Your task to perform on an android device: Is it going to rain this weekend? Image 0: 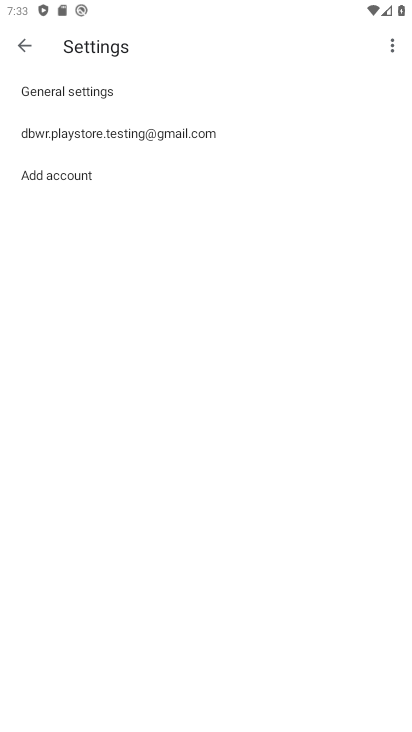
Step 0: press home button
Your task to perform on an android device: Is it going to rain this weekend? Image 1: 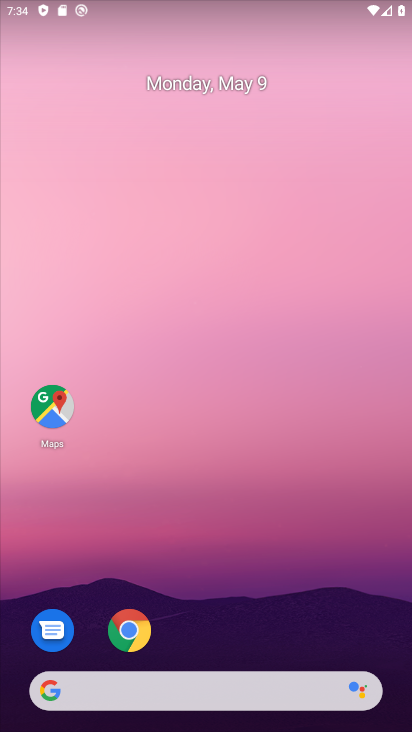
Step 1: drag from (343, 625) to (341, 255)
Your task to perform on an android device: Is it going to rain this weekend? Image 2: 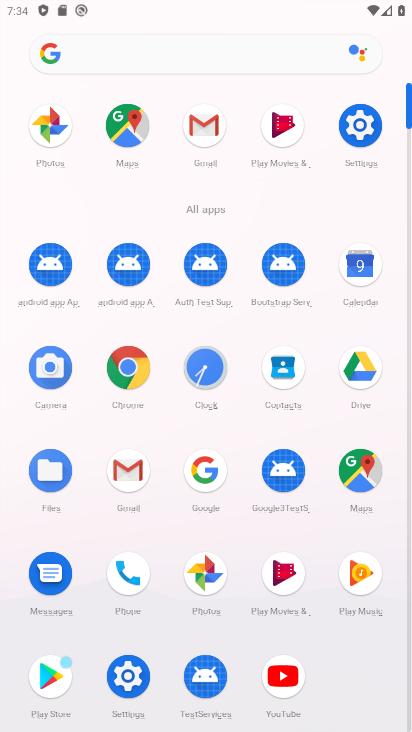
Step 2: click (123, 363)
Your task to perform on an android device: Is it going to rain this weekend? Image 3: 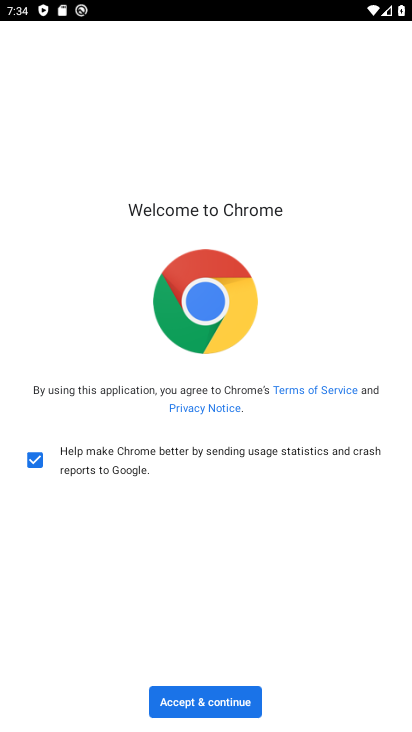
Step 3: click (178, 705)
Your task to perform on an android device: Is it going to rain this weekend? Image 4: 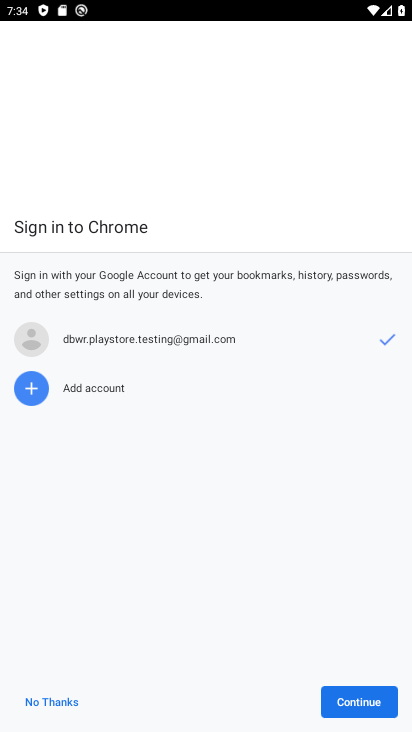
Step 4: click (359, 716)
Your task to perform on an android device: Is it going to rain this weekend? Image 5: 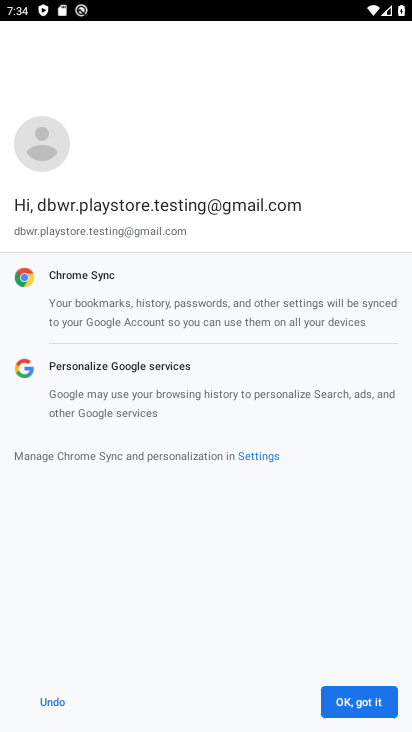
Step 5: click (360, 698)
Your task to perform on an android device: Is it going to rain this weekend? Image 6: 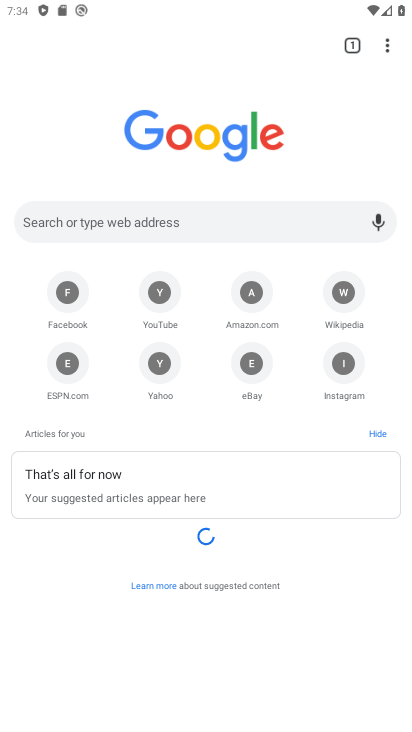
Step 6: click (205, 224)
Your task to perform on an android device: Is it going to rain this weekend? Image 7: 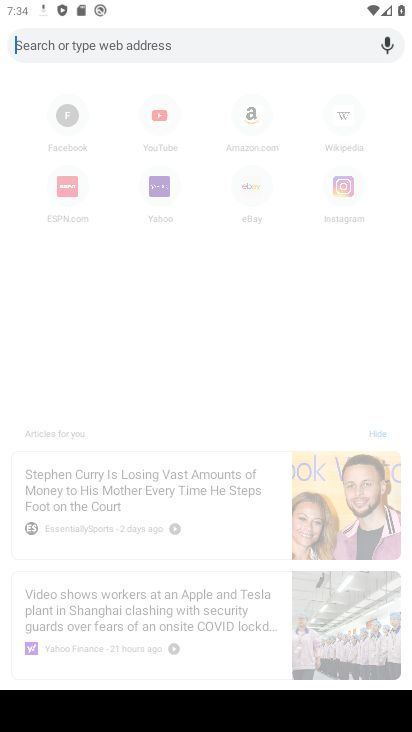
Step 7: type "is it going to rain this weekend"
Your task to perform on an android device: Is it going to rain this weekend? Image 8: 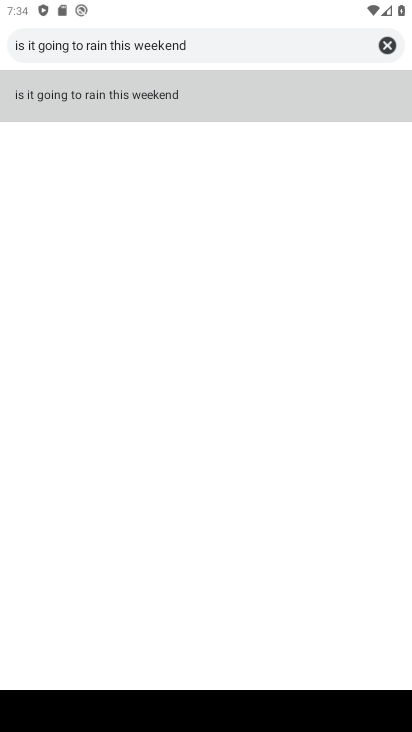
Step 8: click (139, 96)
Your task to perform on an android device: Is it going to rain this weekend? Image 9: 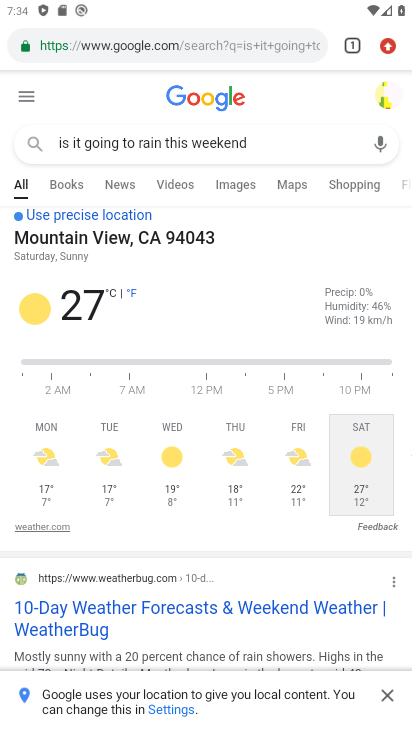
Step 9: task complete